Your task to perform on an android device: Is it going to rain tomorrow? Image 0: 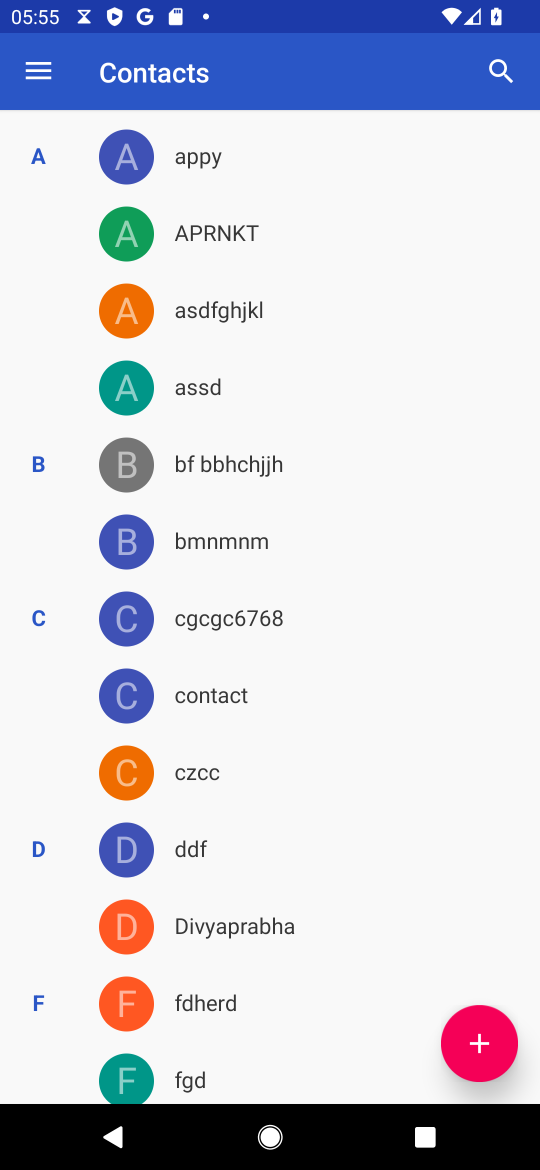
Step 0: press home button
Your task to perform on an android device: Is it going to rain tomorrow? Image 1: 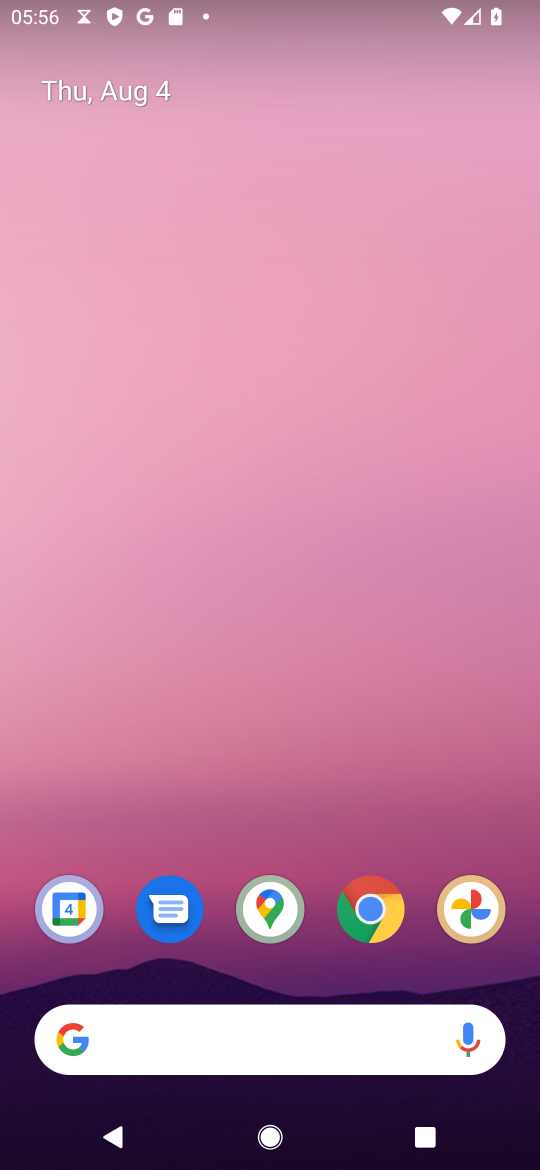
Step 1: click (148, 1046)
Your task to perform on an android device: Is it going to rain tomorrow? Image 2: 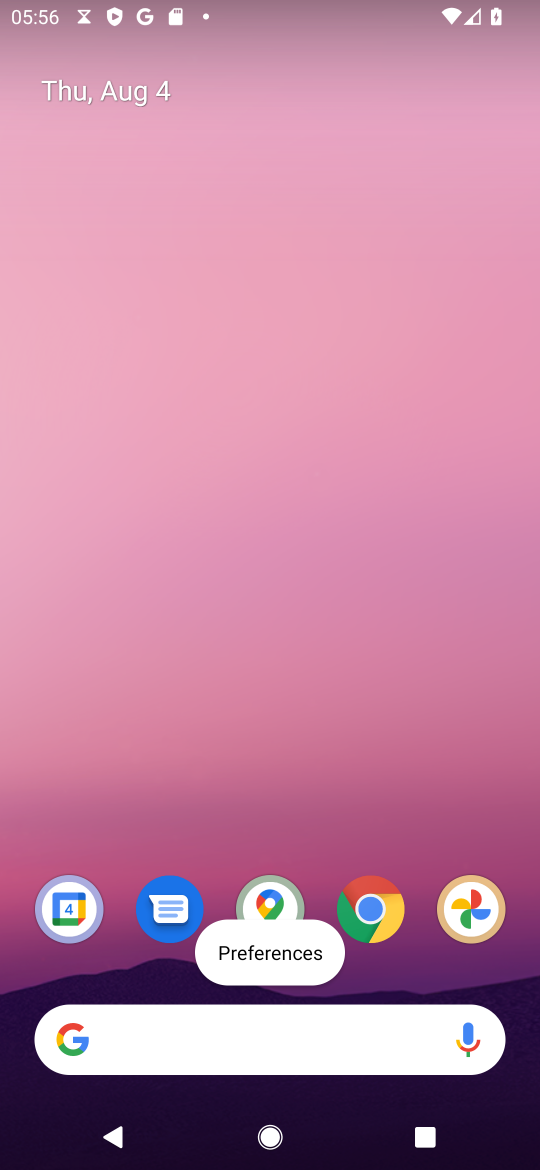
Step 2: click (187, 1049)
Your task to perform on an android device: Is it going to rain tomorrow? Image 3: 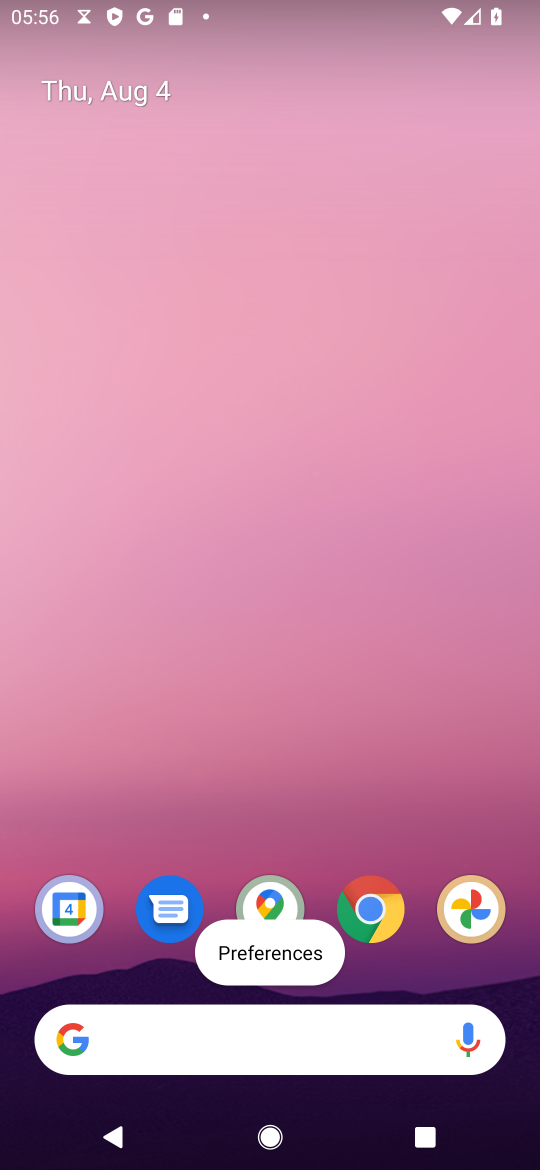
Step 3: click (181, 1053)
Your task to perform on an android device: Is it going to rain tomorrow? Image 4: 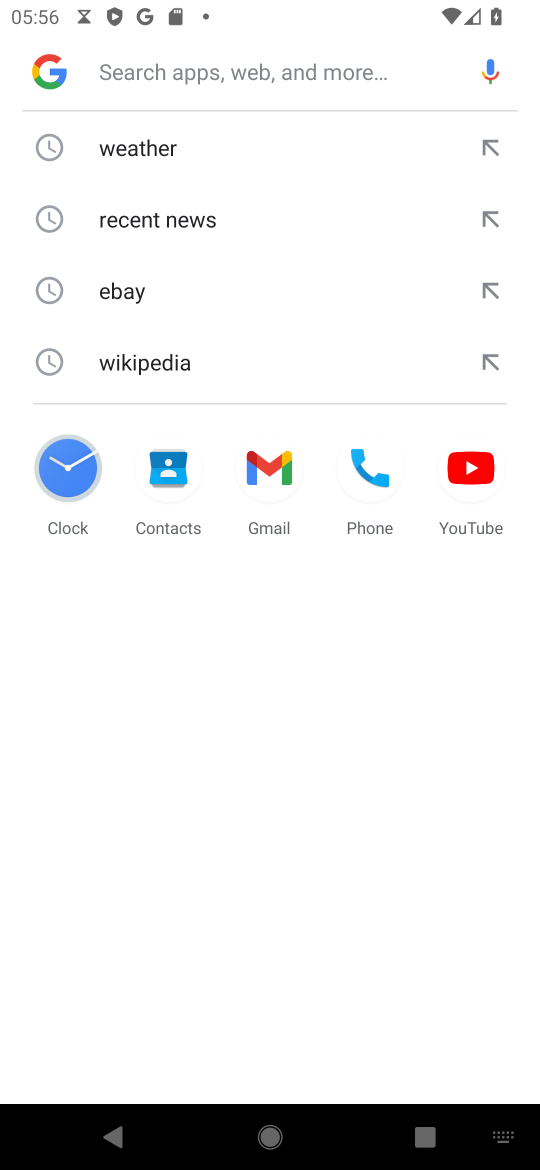
Step 4: click (114, 152)
Your task to perform on an android device: Is it going to rain tomorrow? Image 5: 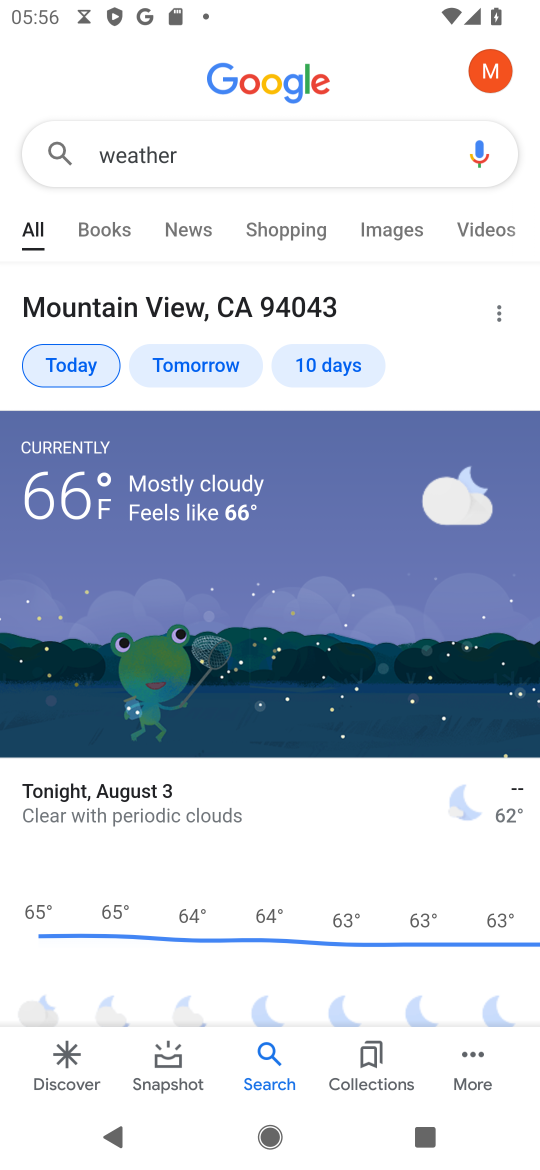
Step 5: click (192, 355)
Your task to perform on an android device: Is it going to rain tomorrow? Image 6: 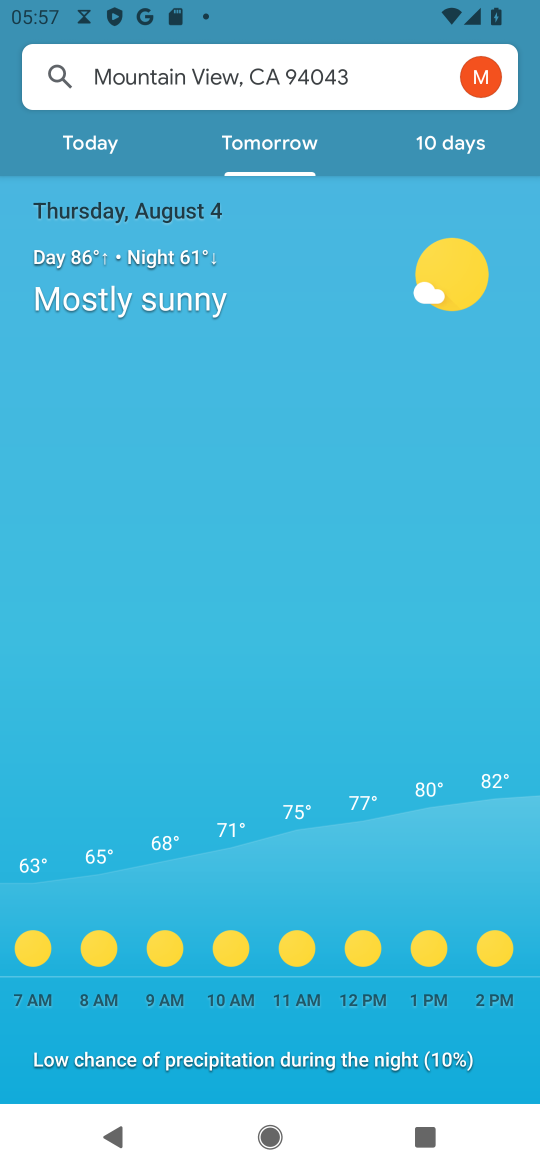
Step 6: task complete